Your task to perform on an android device: Go to settings Image 0: 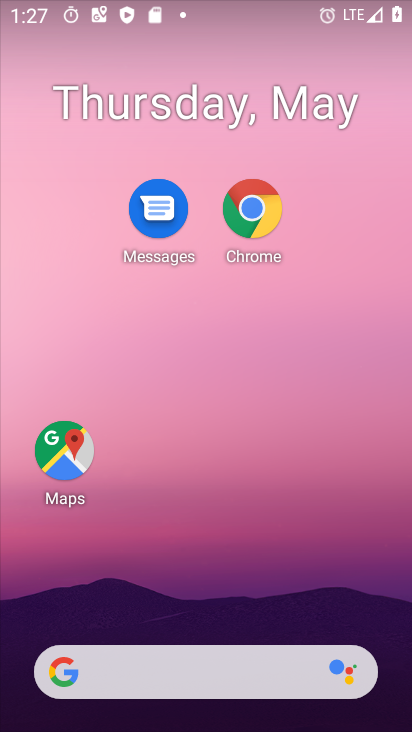
Step 0: drag from (246, 566) to (238, 4)
Your task to perform on an android device: Go to settings Image 1: 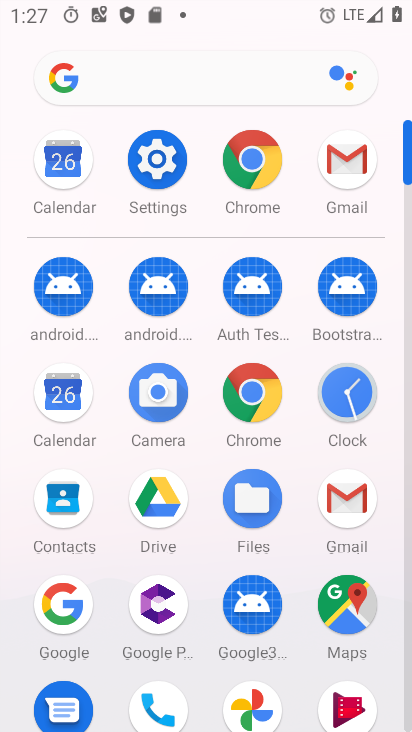
Step 1: click (147, 185)
Your task to perform on an android device: Go to settings Image 2: 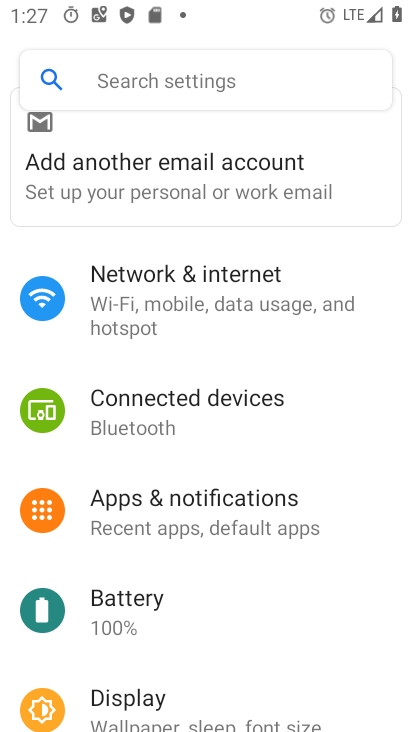
Step 2: task complete